Your task to perform on an android device: Open the web browser Image 0: 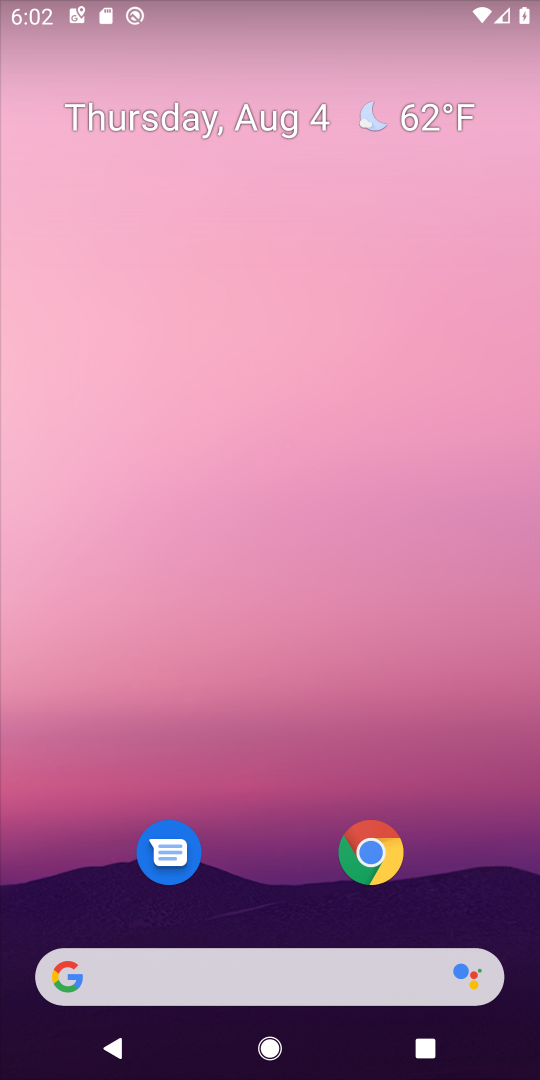
Step 0: click (359, 862)
Your task to perform on an android device: Open the web browser Image 1: 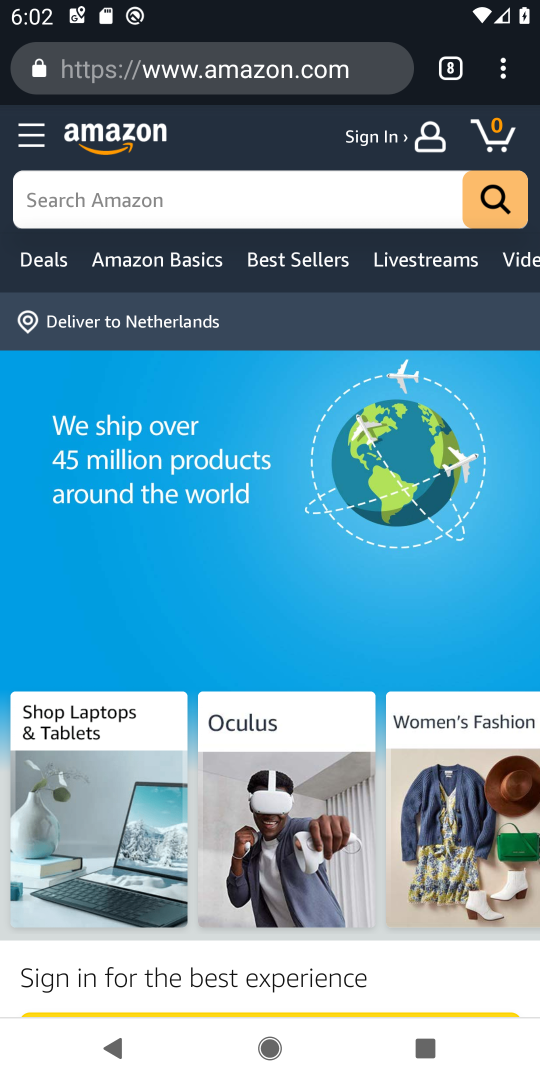
Step 1: task complete